Your task to perform on an android device: open device folders in google photos Image 0: 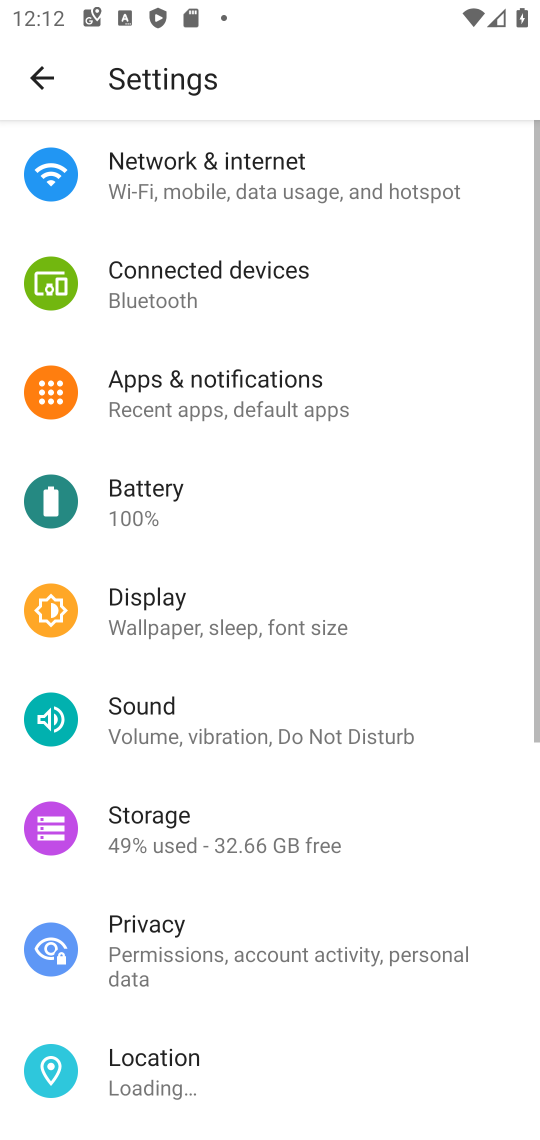
Step 0: press home button
Your task to perform on an android device: open device folders in google photos Image 1: 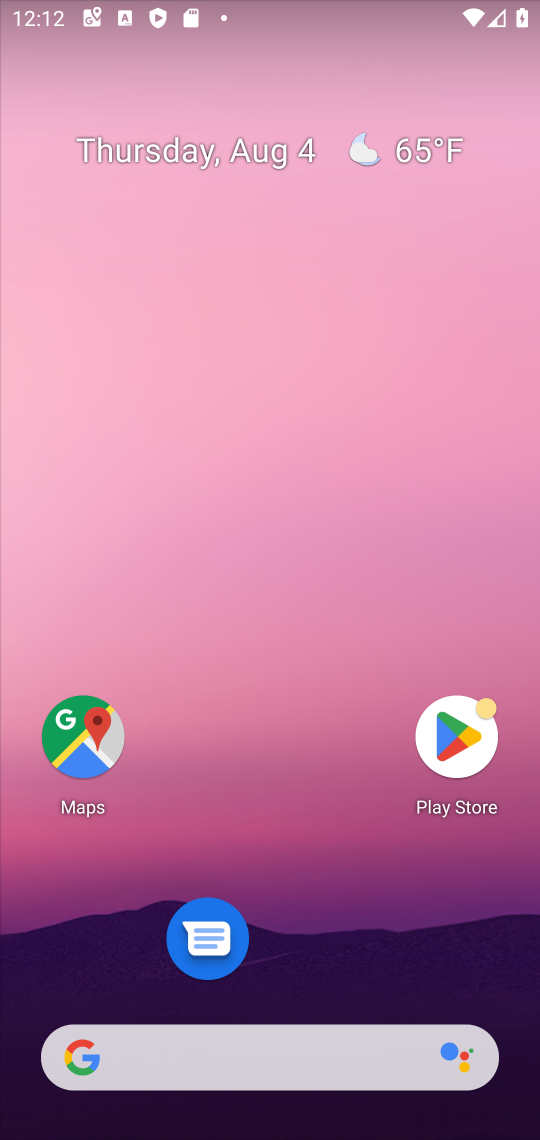
Step 1: drag from (196, 571) to (216, 194)
Your task to perform on an android device: open device folders in google photos Image 2: 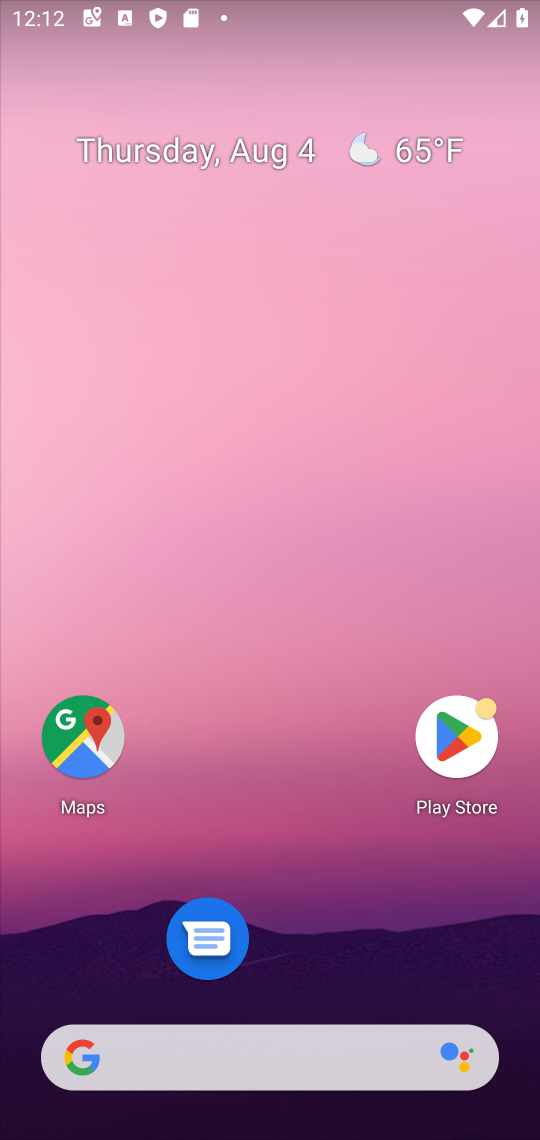
Step 2: drag from (313, 1021) to (317, 28)
Your task to perform on an android device: open device folders in google photos Image 3: 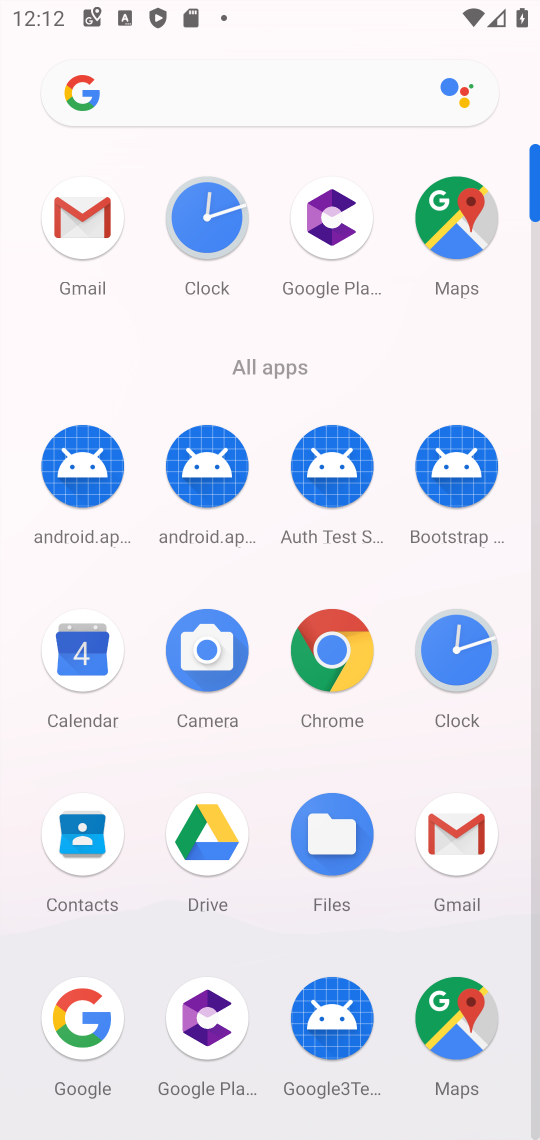
Step 3: drag from (340, 809) to (368, 2)
Your task to perform on an android device: open device folders in google photos Image 4: 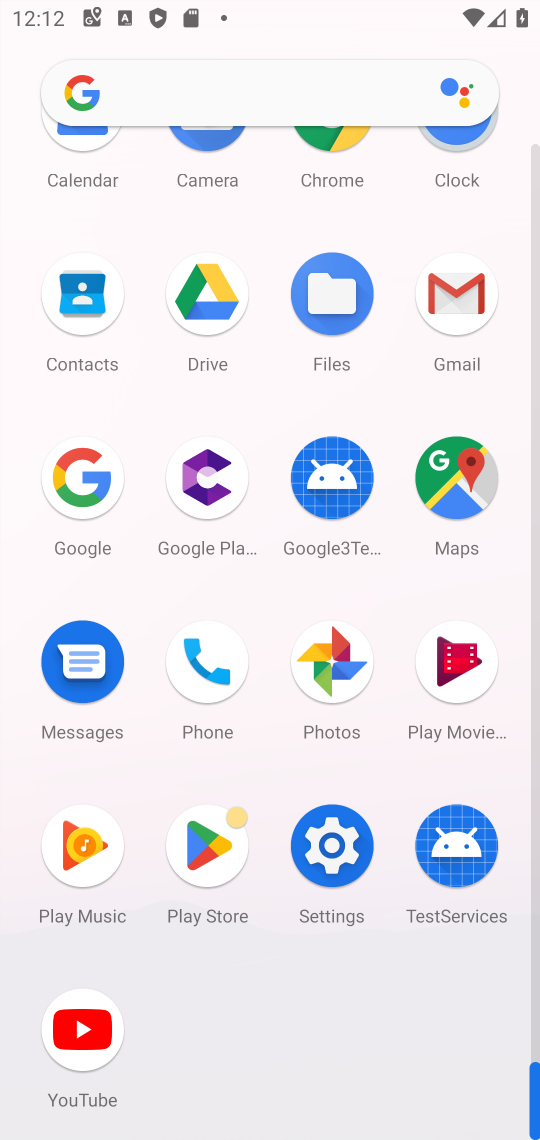
Step 4: click (318, 663)
Your task to perform on an android device: open device folders in google photos Image 5: 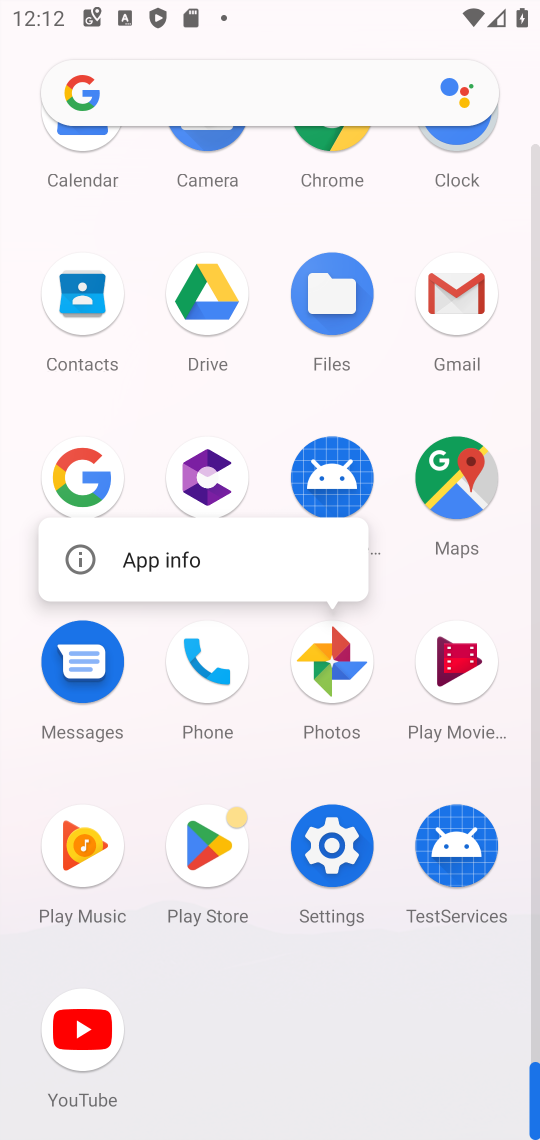
Step 5: click (318, 663)
Your task to perform on an android device: open device folders in google photos Image 6: 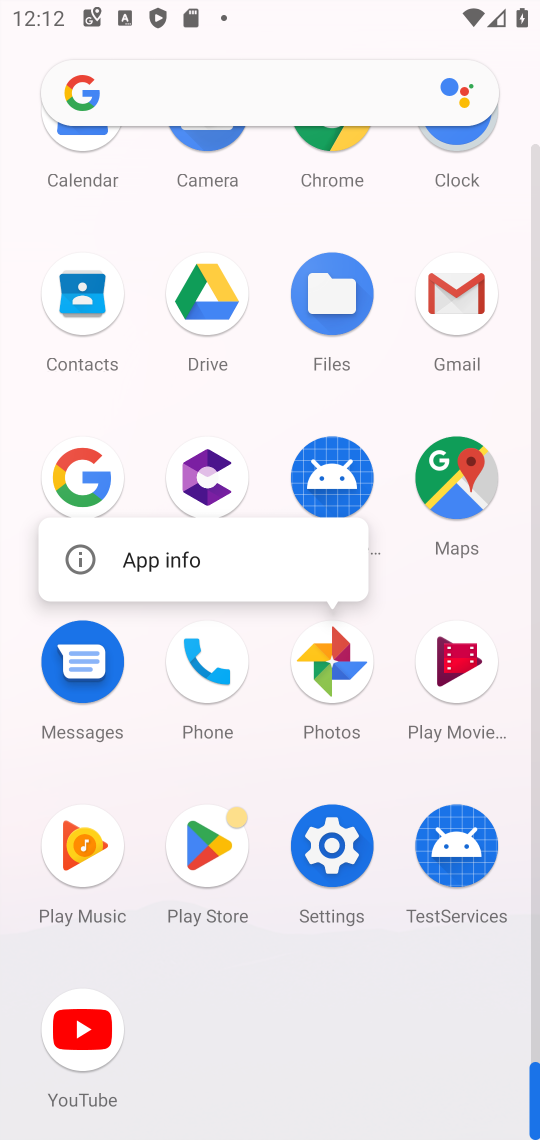
Step 6: click (315, 682)
Your task to perform on an android device: open device folders in google photos Image 7: 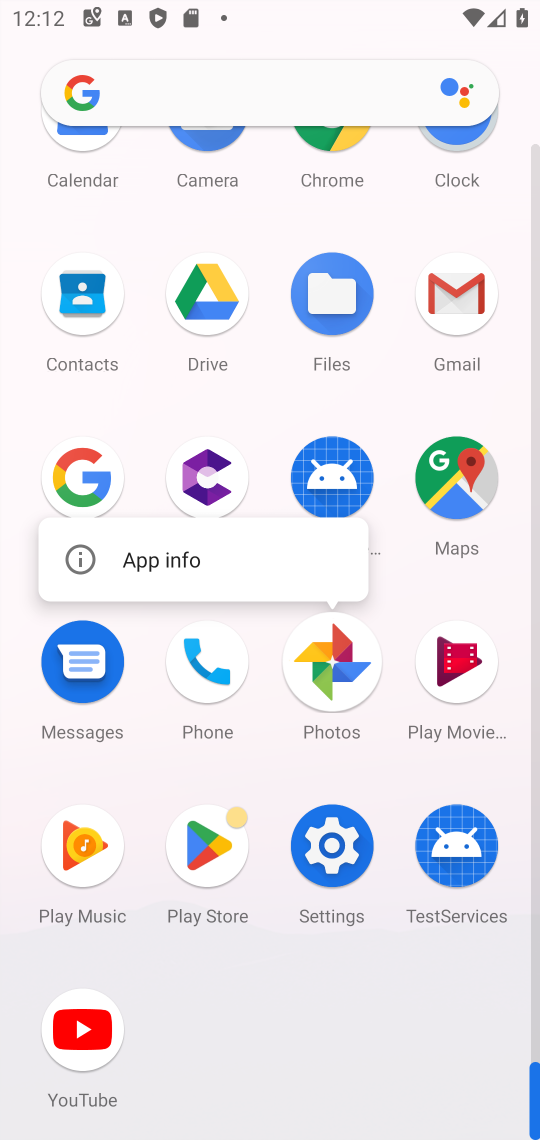
Step 7: click (315, 682)
Your task to perform on an android device: open device folders in google photos Image 8: 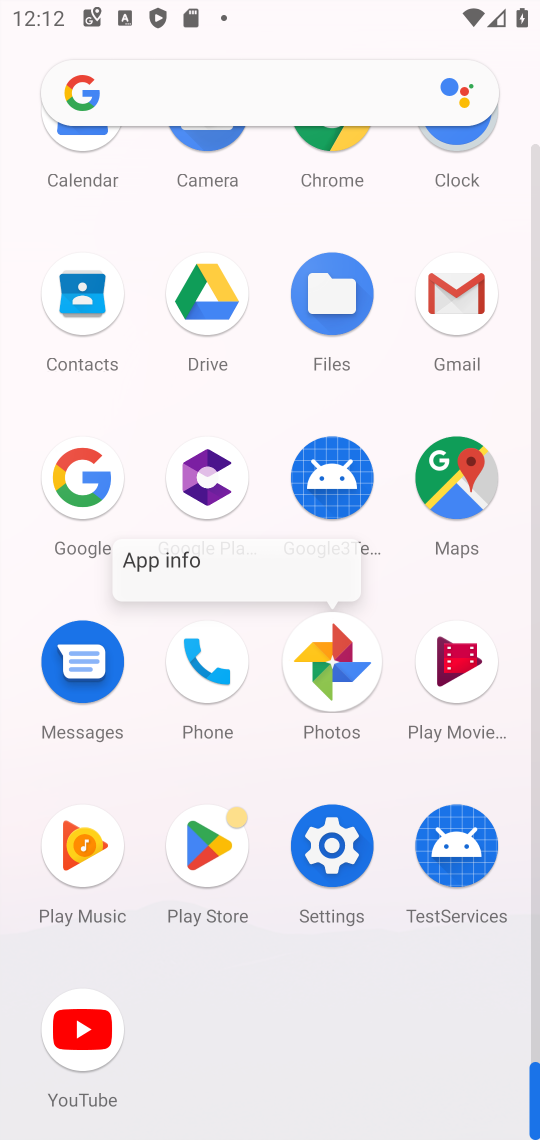
Step 8: click (315, 682)
Your task to perform on an android device: open device folders in google photos Image 9: 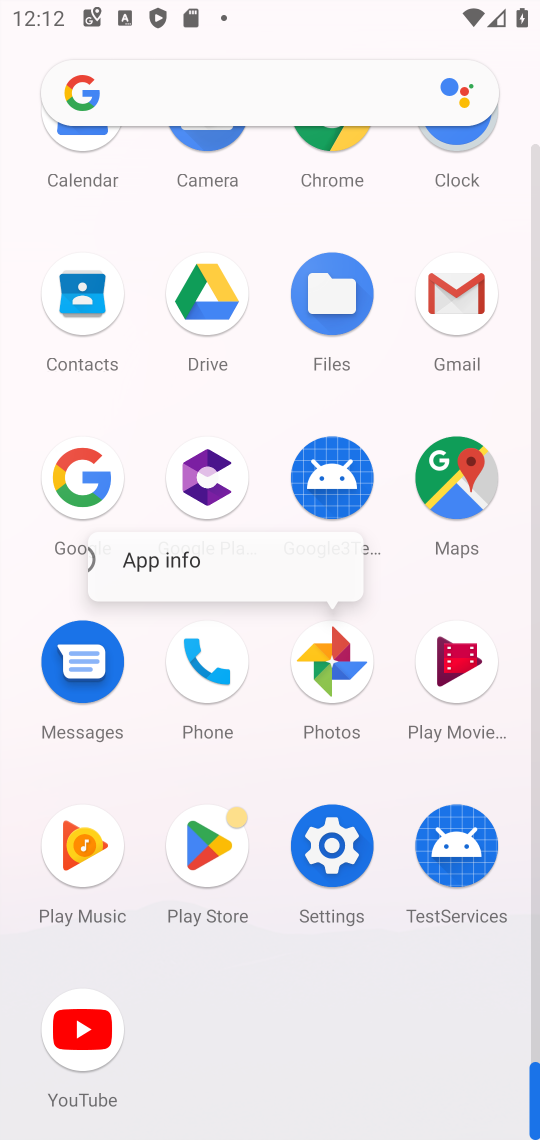
Step 9: click (315, 682)
Your task to perform on an android device: open device folders in google photos Image 10: 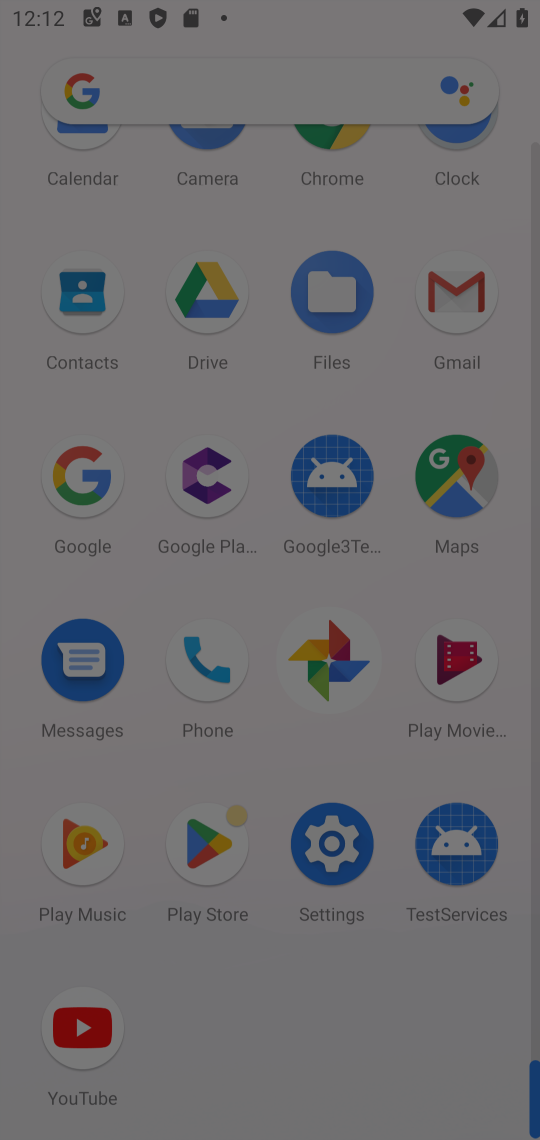
Step 10: click (315, 682)
Your task to perform on an android device: open device folders in google photos Image 11: 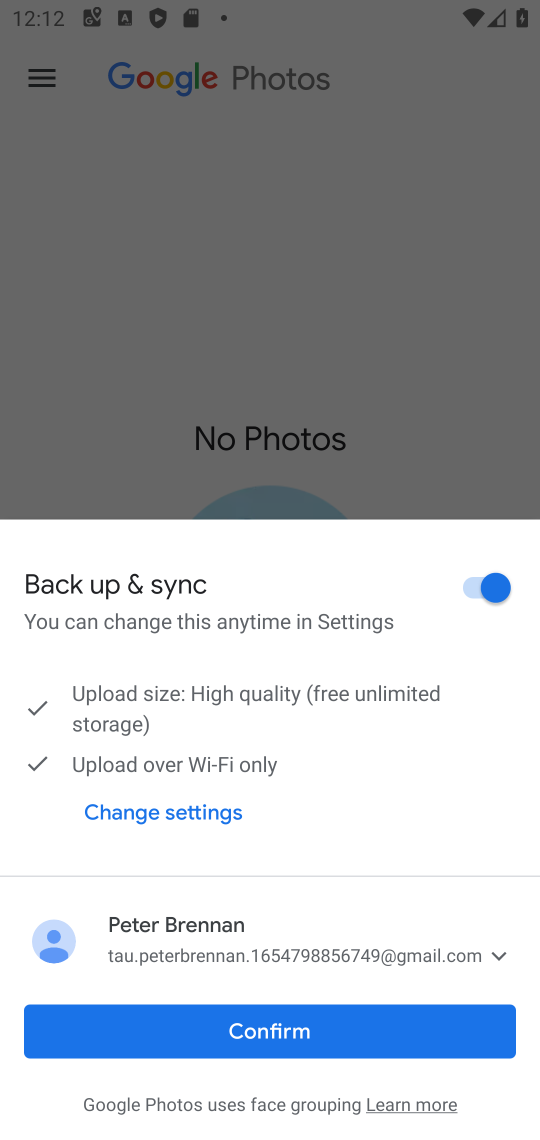
Step 11: click (343, 1047)
Your task to perform on an android device: open device folders in google photos Image 12: 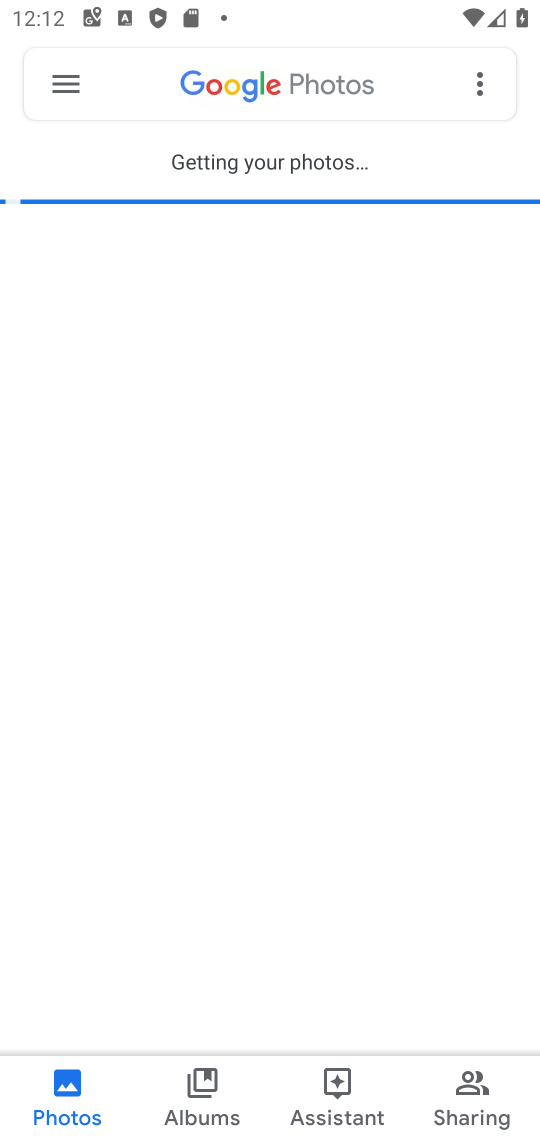
Step 12: click (64, 80)
Your task to perform on an android device: open device folders in google photos Image 13: 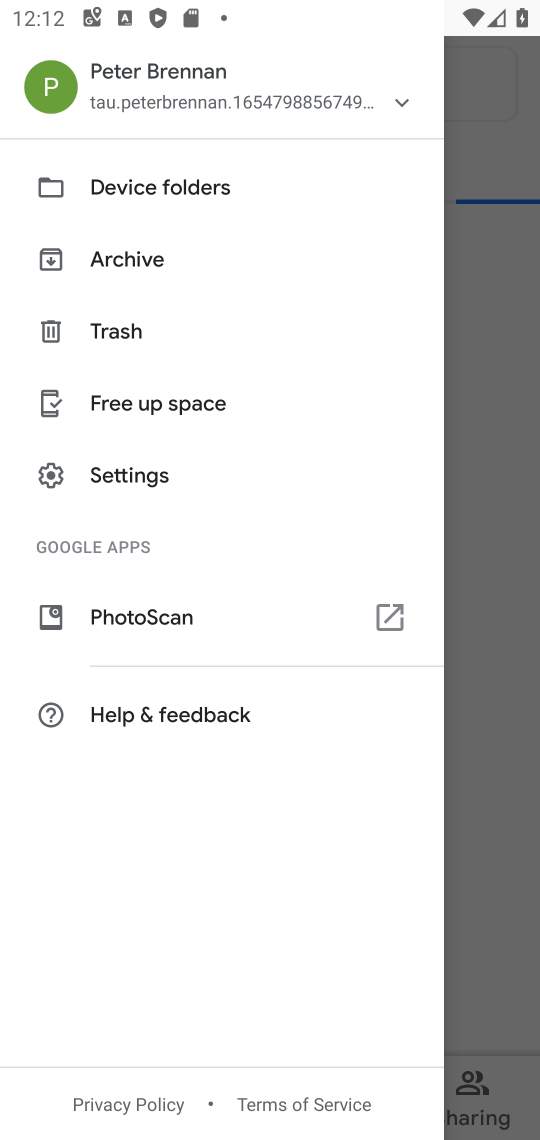
Step 13: click (181, 171)
Your task to perform on an android device: open device folders in google photos Image 14: 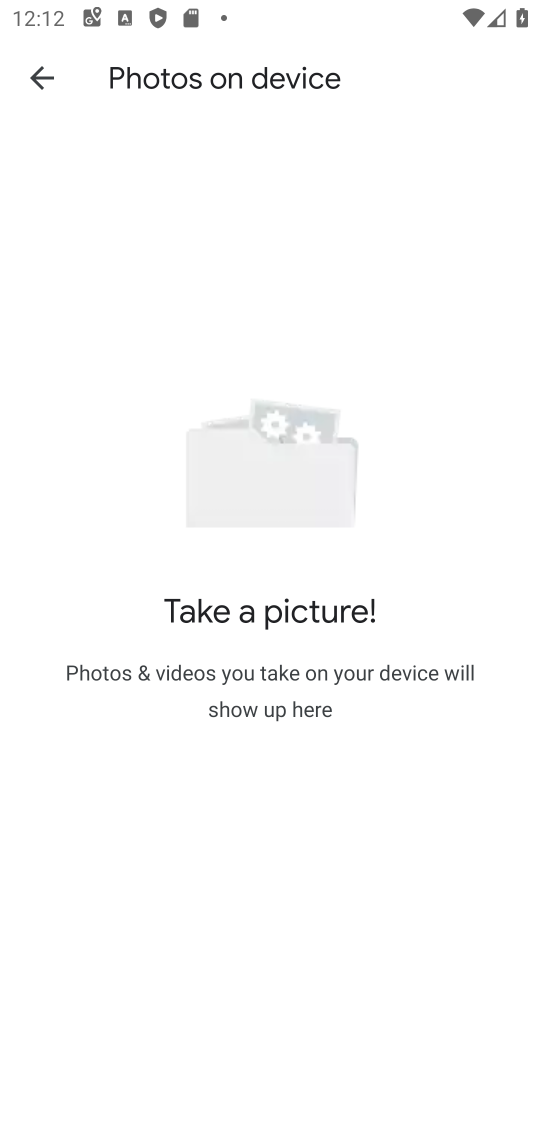
Step 14: task complete